Your task to perform on an android device: Open Google Maps and go to "Timeline" Image 0: 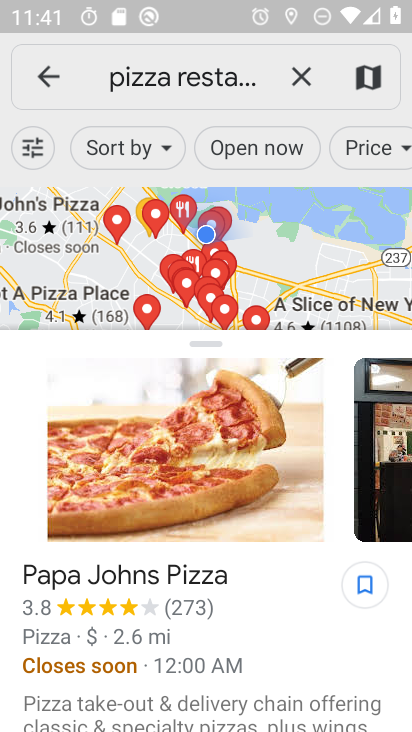
Step 0: press home button
Your task to perform on an android device: Open Google Maps and go to "Timeline" Image 1: 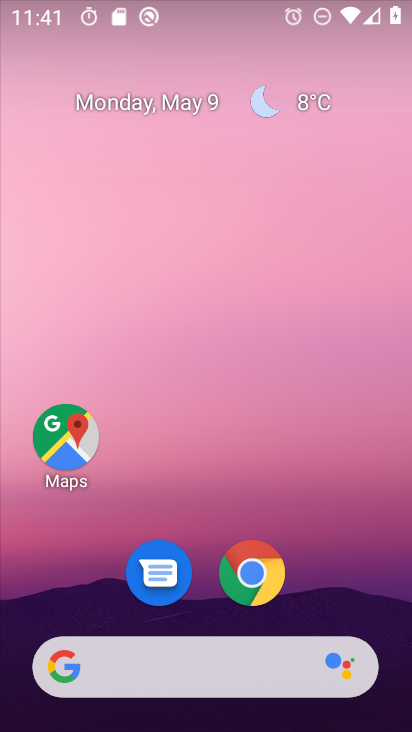
Step 1: drag from (347, 598) to (76, 449)
Your task to perform on an android device: Open Google Maps and go to "Timeline" Image 2: 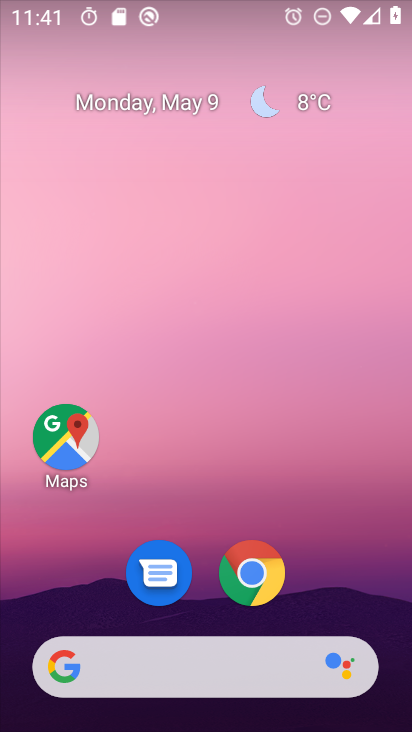
Step 2: click (66, 445)
Your task to perform on an android device: Open Google Maps and go to "Timeline" Image 3: 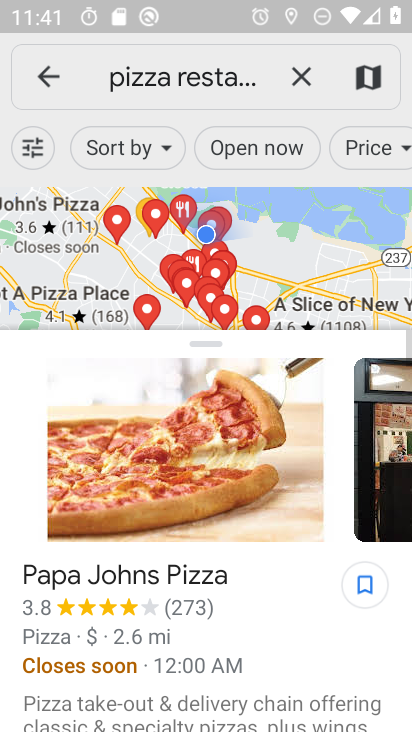
Step 3: click (48, 75)
Your task to perform on an android device: Open Google Maps and go to "Timeline" Image 4: 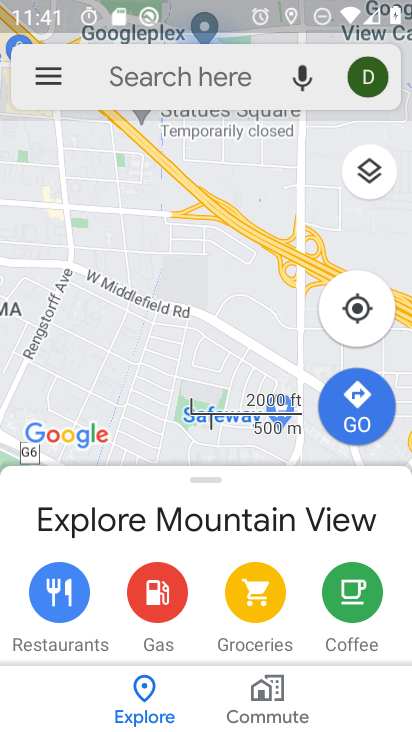
Step 4: click (48, 75)
Your task to perform on an android device: Open Google Maps and go to "Timeline" Image 5: 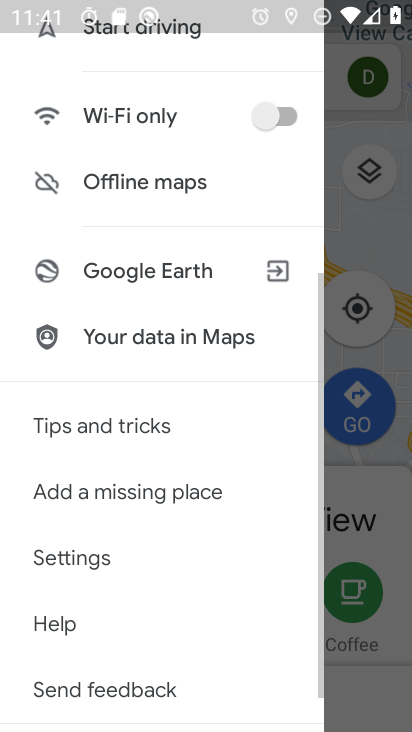
Step 5: drag from (136, 219) to (193, 644)
Your task to perform on an android device: Open Google Maps and go to "Timeline" Image 6: 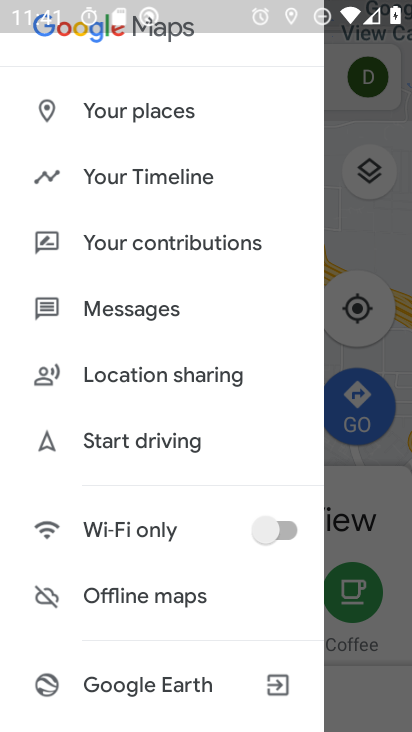
Step 6: drag from (161, 290) to (180, 582)
Your task to perform on an android device: Open Google Maps and go to "Timeline" Image 7: 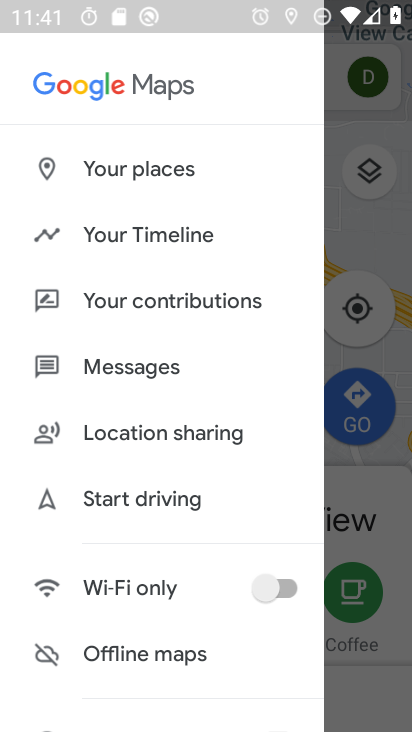
Step 7: click (167, 226)
Your task to perform on an android device: Open Google Maps and go to "Timeline" Image 8: 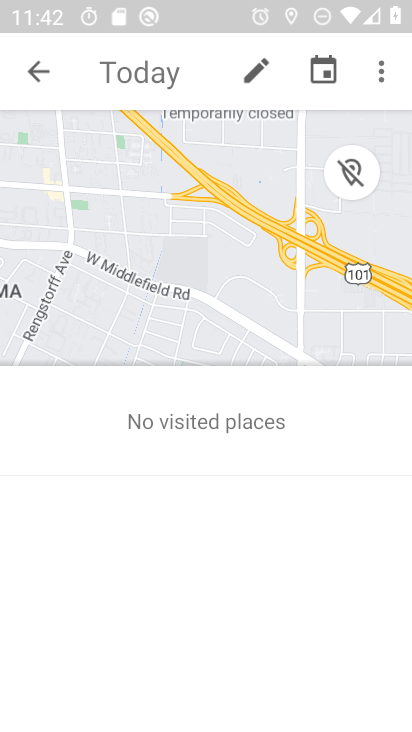
Step 8: task complete